Your task to perform on an android device: turn notification dots on Image 0: 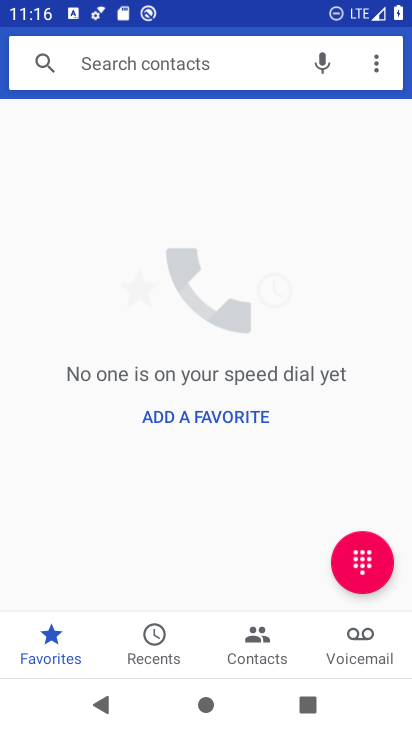
Step 0: press home button
Your task to perform on an android device: turn notification dots on Image 1: 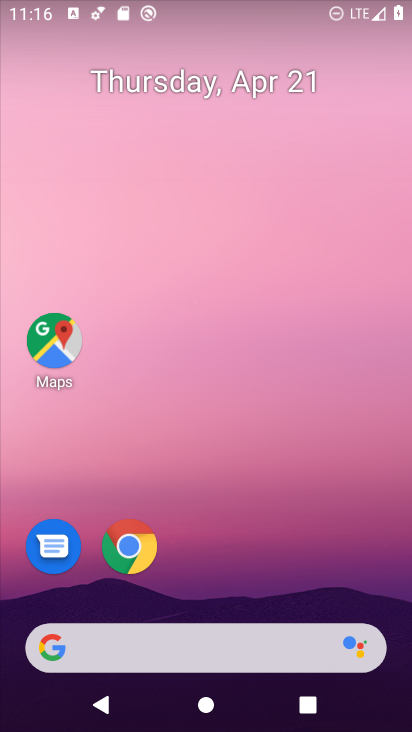
Step 1: drag from (378, 611) to (301, 130)
Your task to perform on an android device: turn notification dots on Image 2: 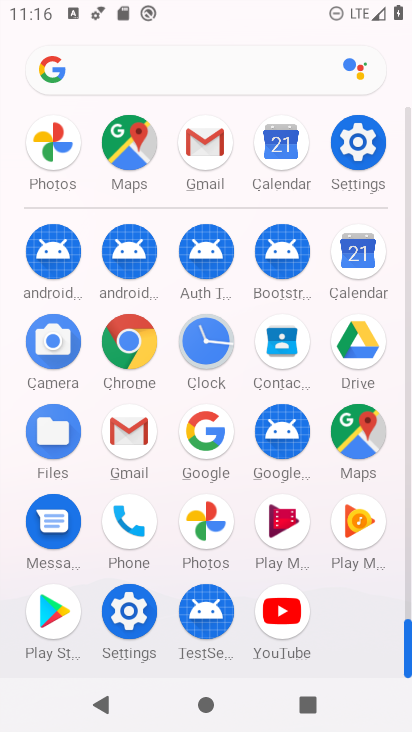
Step 2: click (130, 618)
Your task to perform on an android device: turn notification dots on Image 3: 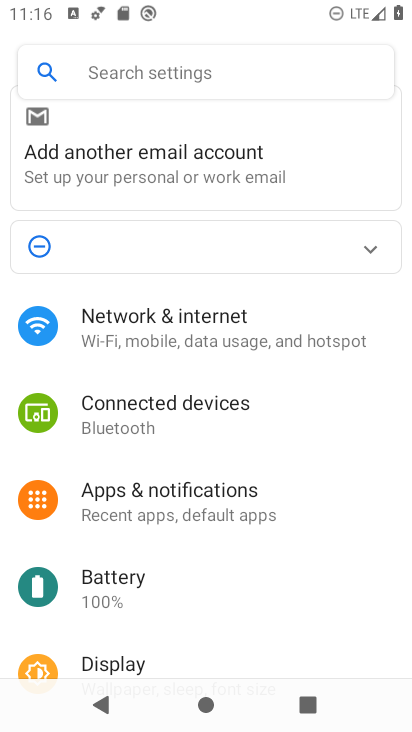
Step 3: click (180, 498)
Your task to perform on an android device: turn notification dots on Image 4: 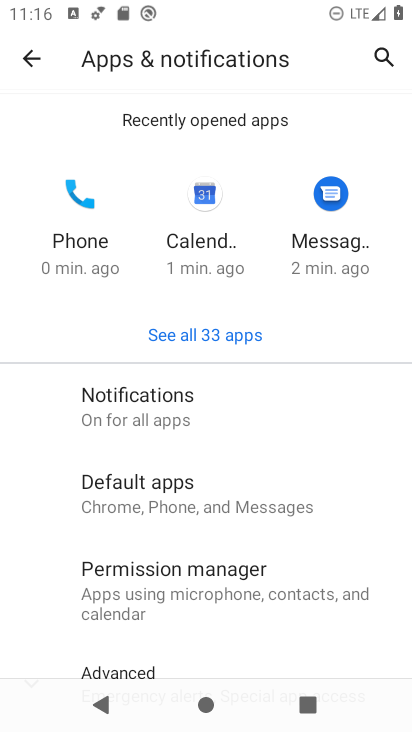
Step 4: click (131, 385)
Your task to perform on an android device: turn notification dots on Image 5: 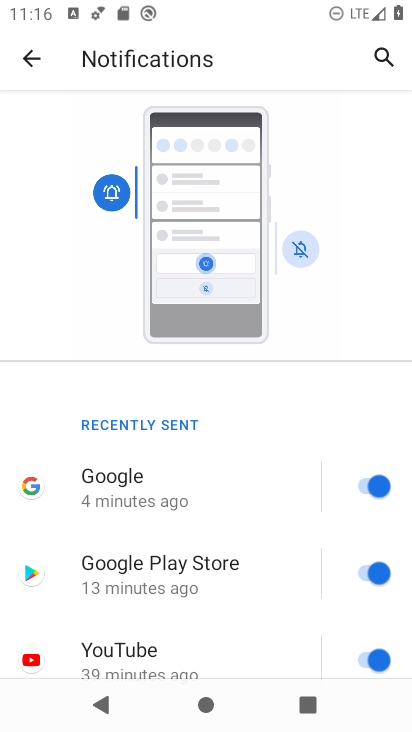
Step 5: drag from (308, 636) to (242, 107)
Your task to perform on an android device: turn notification dots on Image 6: 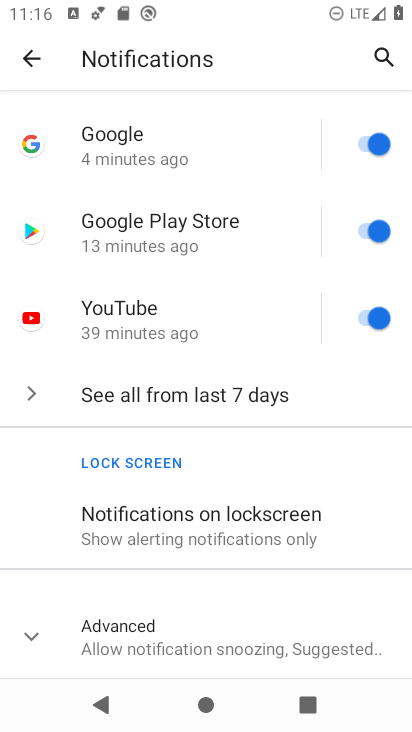
Step 6: click (31, 641)
Your task to perform on an android device: turn notification dots on Image 7: 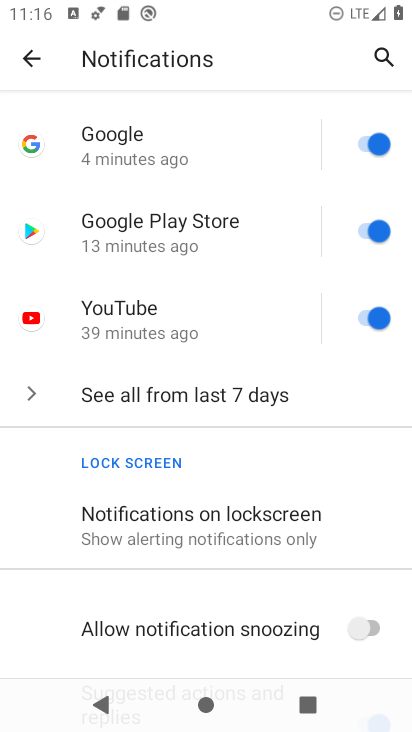
Step 7: task complete